Your task to perform on an android device: Open settings Image 0: 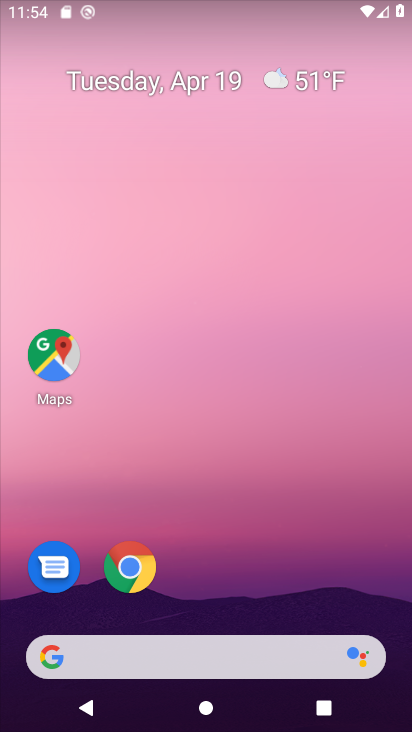
Step 0: drag from (214, 606) to (241, 69)
Your task to perform on an android device: Open settings Image 1: 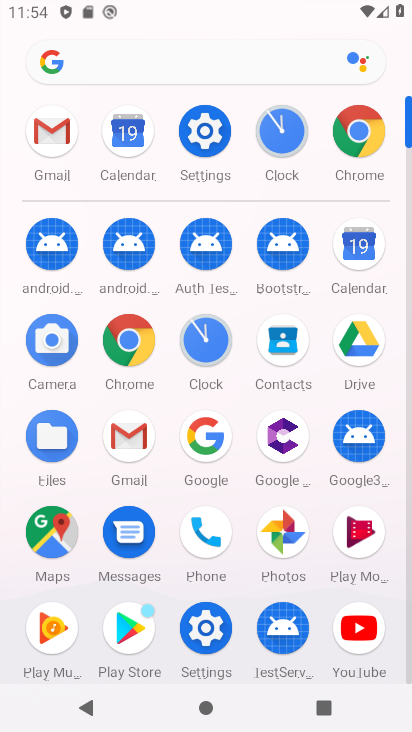
Step 1: click (201, 157)
Your task to perform on an android device: Open settings Image 2: 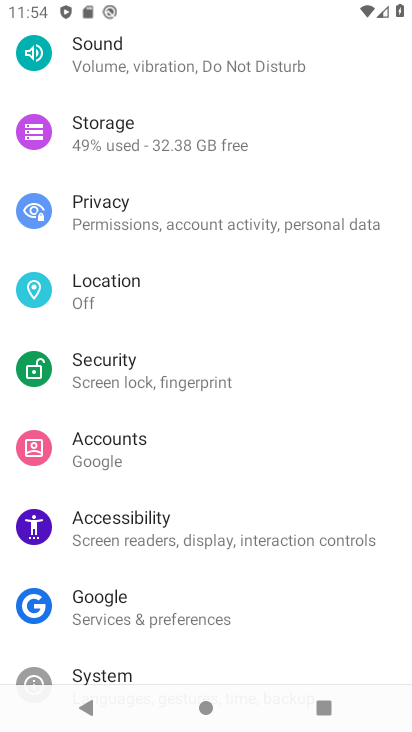
Step 2: task complete